Your task to perform on an android device: Go to Google Image 0: 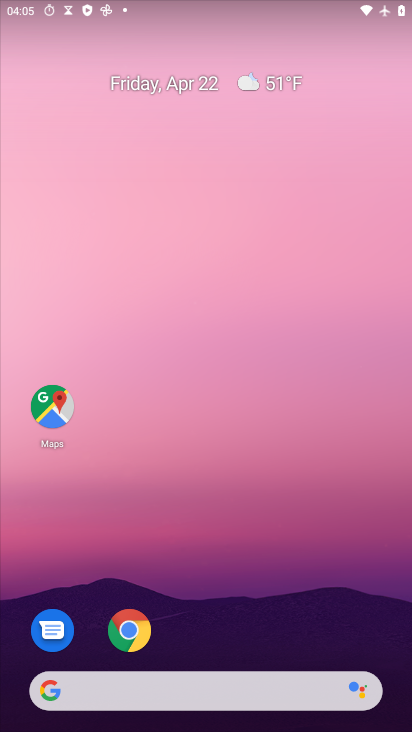
Step 0: drag from (212, 528) to (142, 39)
Your task to perform on an android device: Go to Google Image 1: 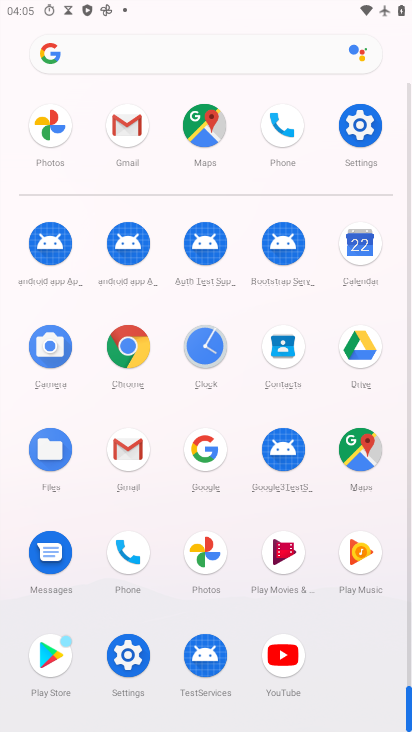
Step 1: click (130, 343)
Your task to perform on an android device: Go to Google Image 2: 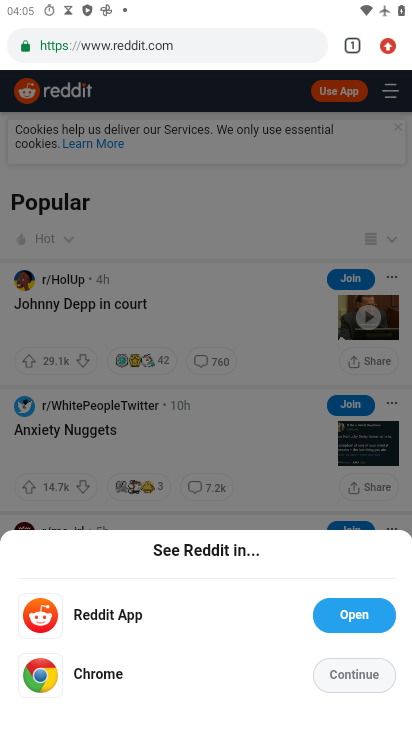
Step 2: click (142, 35)
Your task to perform on an android device: Go to Google Image 3: 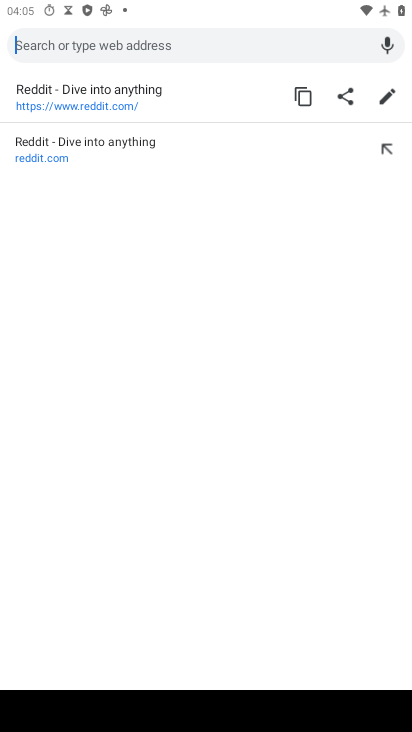
Step 3: type "Google"
Your task to perform on an android device: Go to Google Image 4: 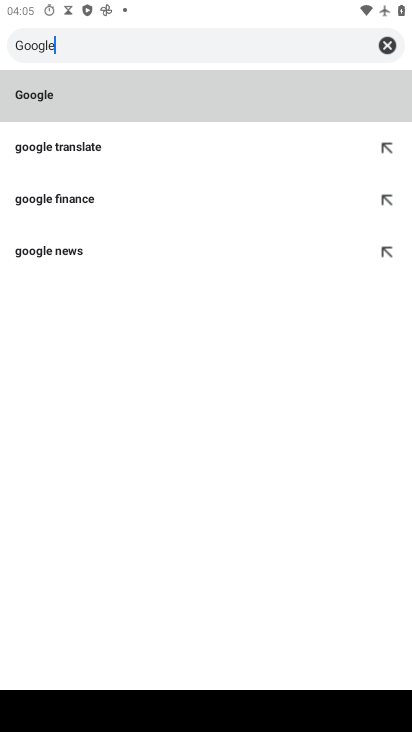
Step 4: click (104, 103)
Your task to perform on an android device: Go to Google Image 5: 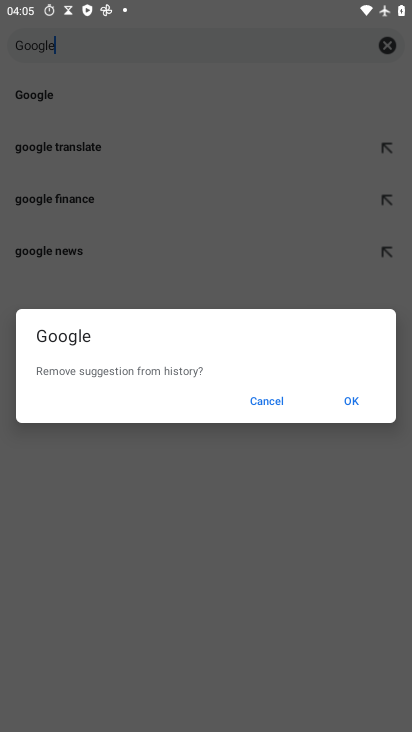
Step 5: click (353, 399)
Your task to perform on an android device: Go to Google Image 6: 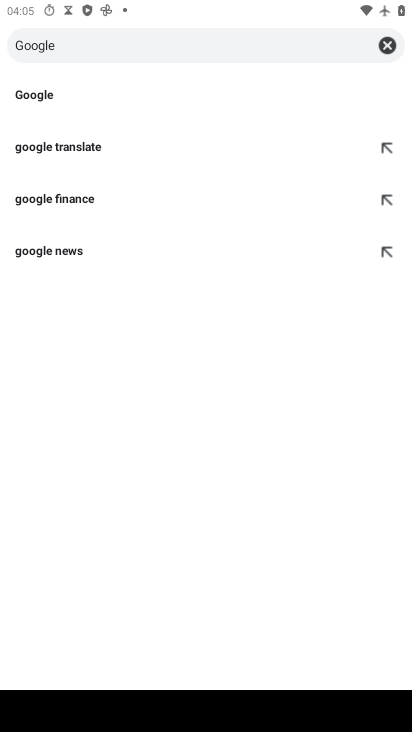
Step 6: click (94, 101)
Your task to perform on an android device: Go to Google Image 7: 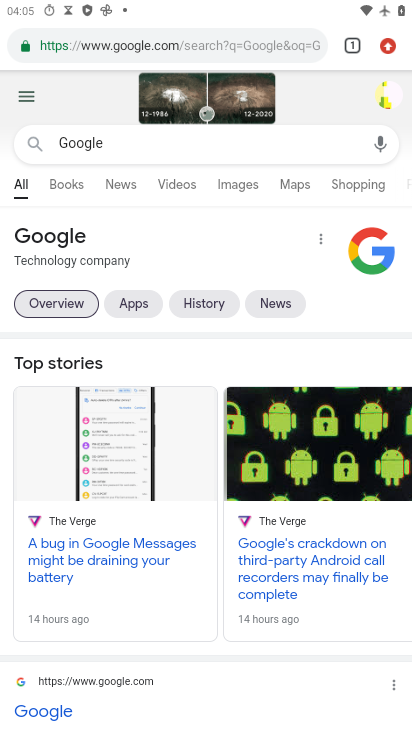
Step 7: drag from (179, 418) to (227, 212)
Your task to perform on an android device: Go to Google Image 8: 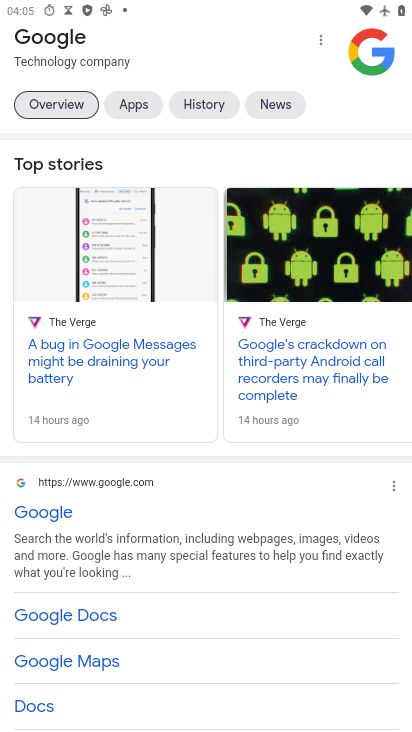
Step 8: click (44, 508)
Your task to perform on an android device: Go to Google Image 9: 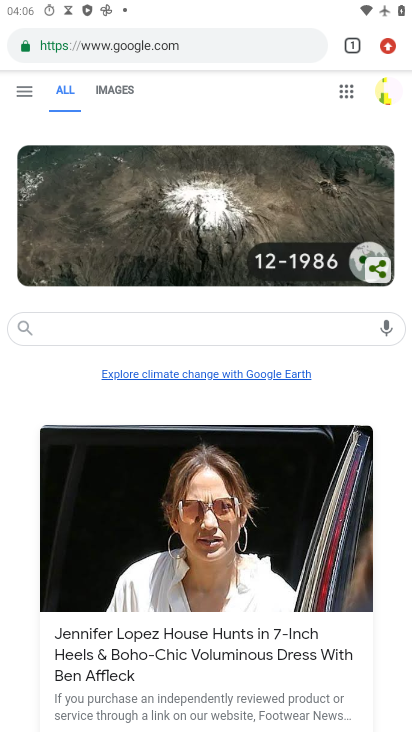
Step 9: task complete